Your task to perform on an android device: change the clock display to digital Image 0: 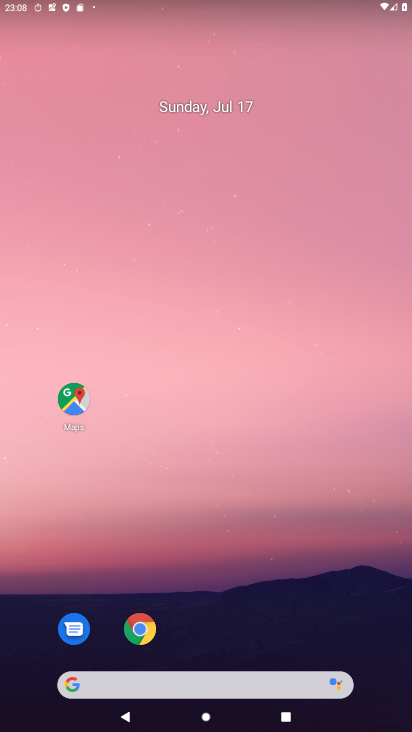
Step 0: drag from (241, 721) to (241, 41)
Your task to perform on an android device: change the clock display to digital Image 1: 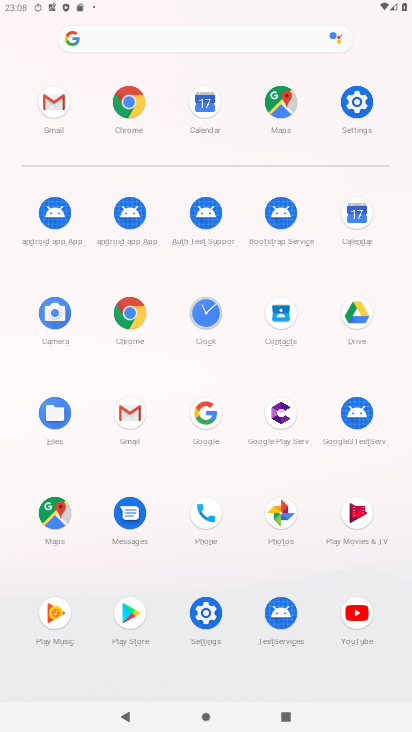
Step 1: click (198, 311)
Your task to perform on an android device: change the clock display to digital Image 2: 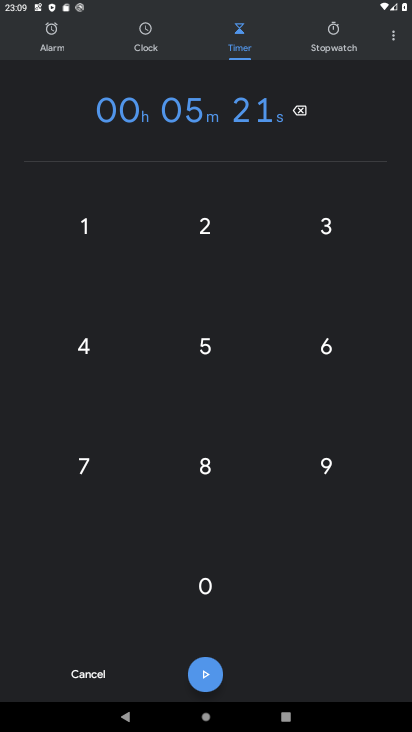
Step 2: click (394, 41)
Your task to perform on an android device: change the clock display to digital Image 3: 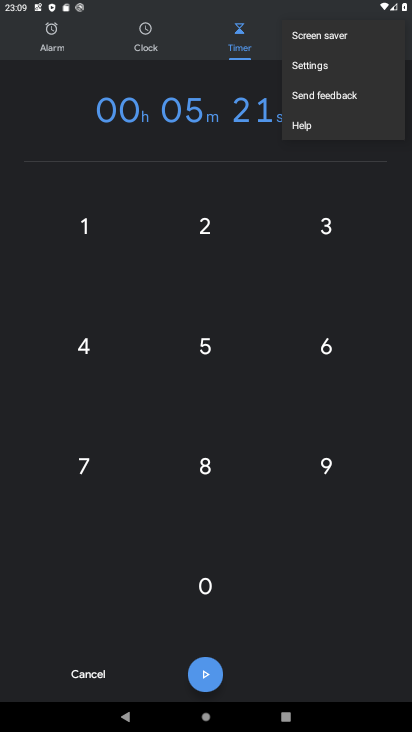
Step 3: click (302, 67)
Your task to perform on an android device: change the clock display to digital Image 4: 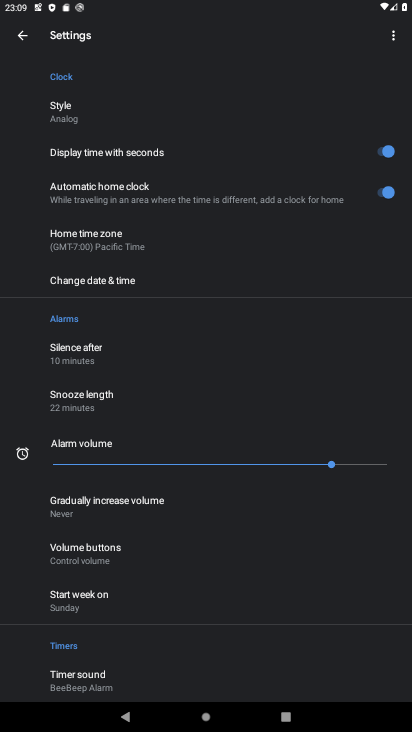
Step 4: click (68, 121)
Your task to perform on an android device: change the clock display to digital Image 5: 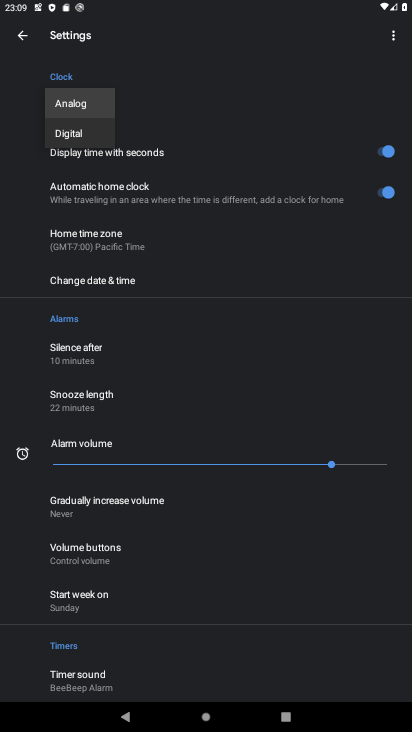
Step 5: click (68, 132)
Your task to perform on an android device: change the clock display to digital Image 6: 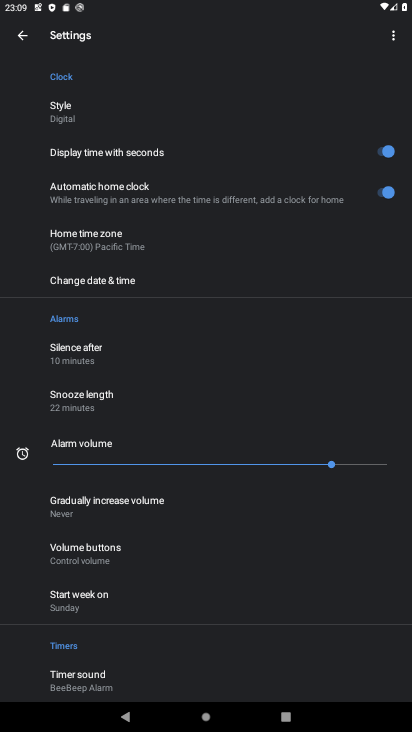
Step 6: task complete